Your task to perform on an android device: open wifi settings Image 0: 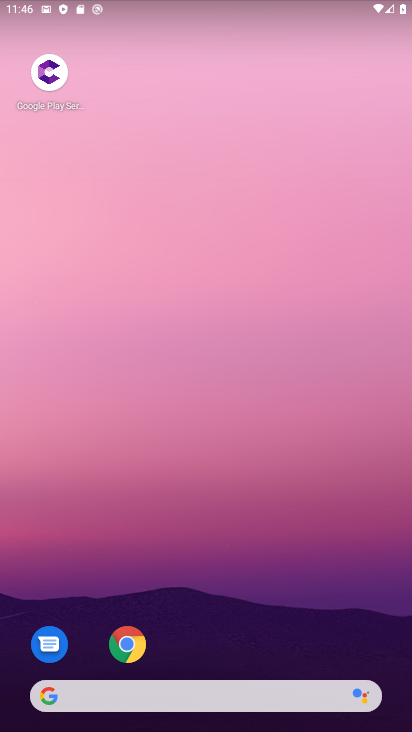
Step 0: drag from (329, 577) to (227, 138)
Your task to perform on an android device: open wifi settings Image 1: 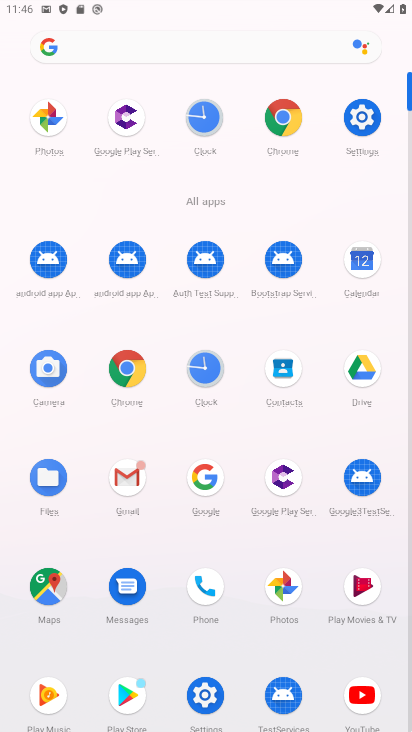
Step 1: click (351, 131)
Your task to perform on an android device: open wifi settings Image 2: 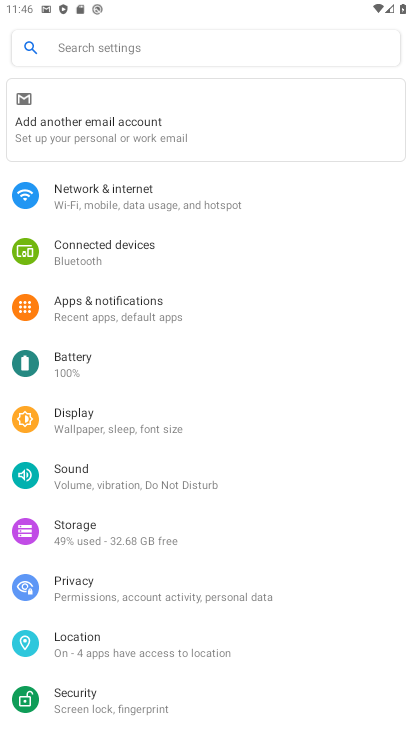
Step 2: click (125, 191)
Your task to perform on an android device: open wifi settings Image 3: 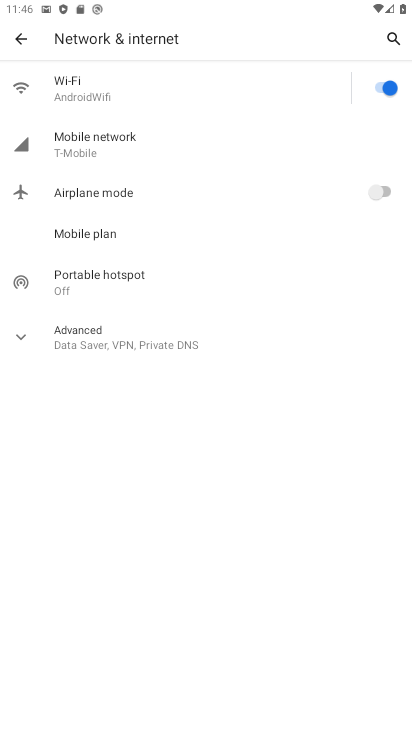
Step 3: click (150, 92)
Your task to perform on an android device: open wifi settings Image 4: 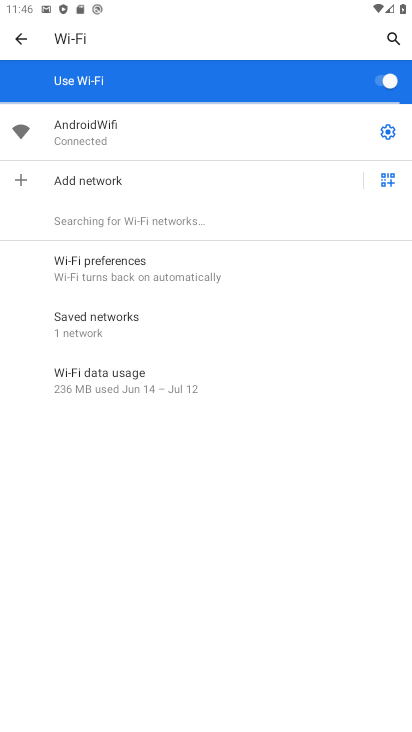
Step 4: task complete